Your task to perform on an android device: Go to Wikipedia Image 0: 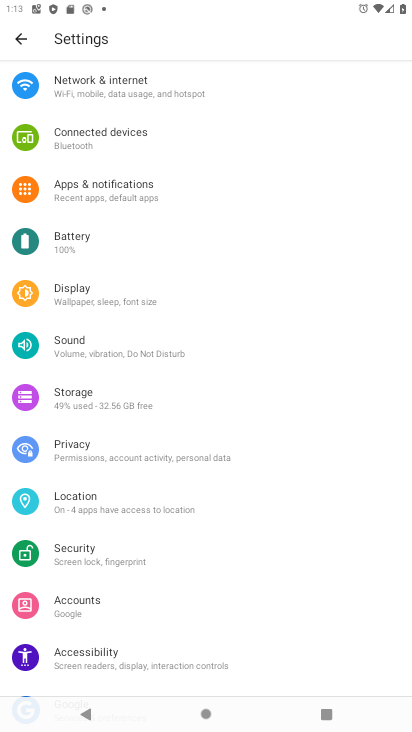
Step 0: press home button
Your task to perform on an android device: Go to Wikipedia Image 1: 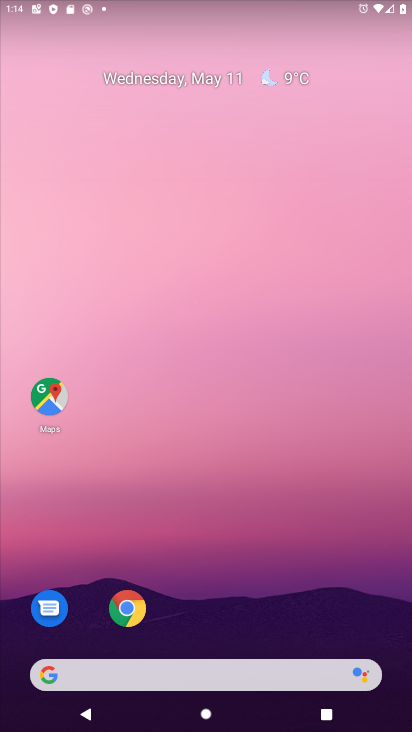
Step 1: drag from (253, 644) to (206, 237)
Your task to perform on an android device: Go to Wikipedia Image 2: 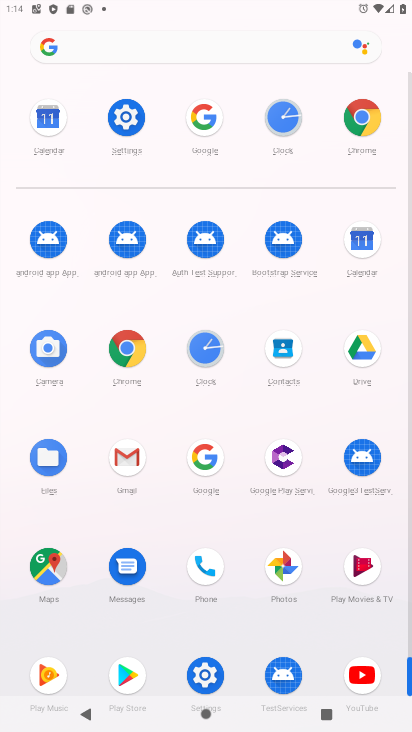
Step 2: click (137, 355)
Your task to perform on an android device: Go to Wikipedia Image 3: 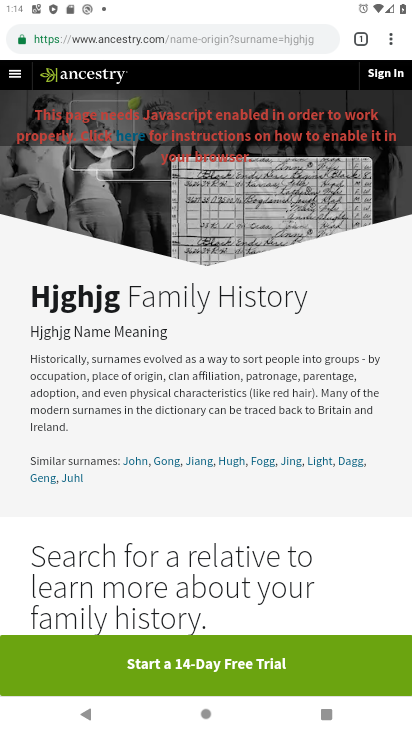
Step 3: click (262, 40)
Your task to perform on an android device: Go to Wikipedia Image 4: 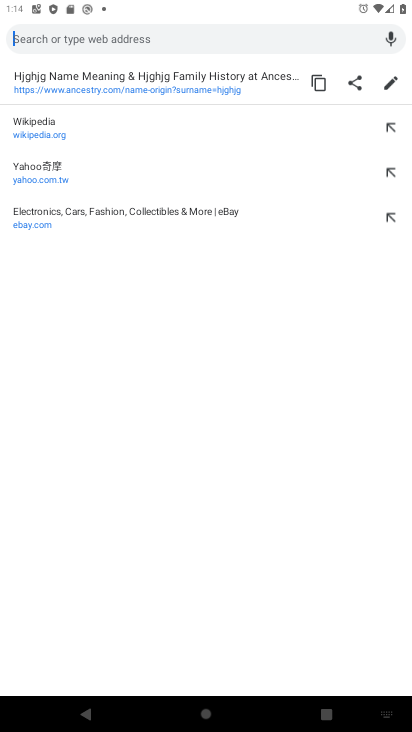
Step 4: click (116, 130)
Your task to perform on an android device: Go to Wikipedia Image 5: 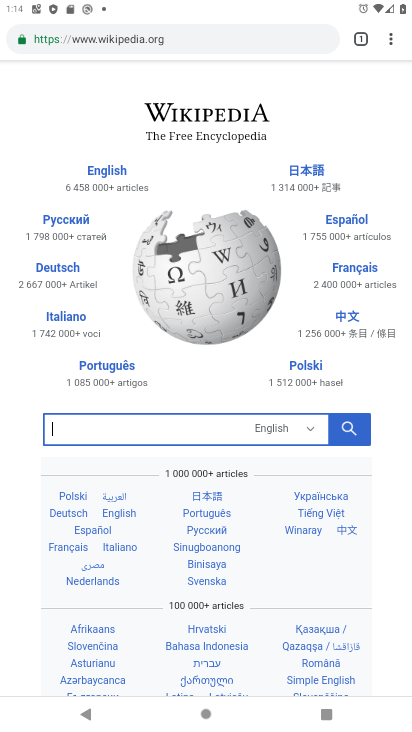
Step 5: task complete